Your task to perform on an android device: check google app version Image 0: 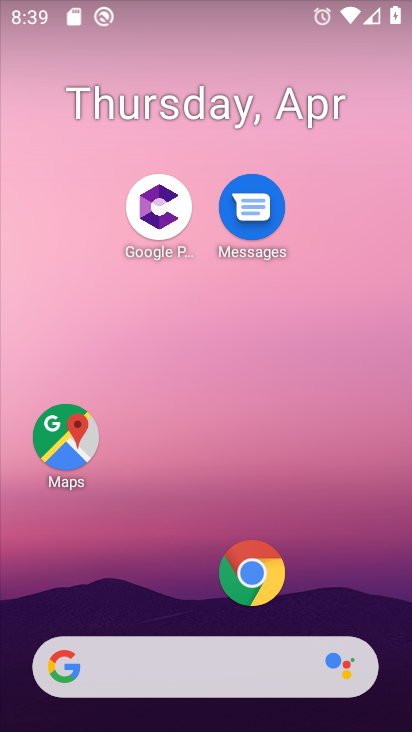
Step 0: drag from (193, 594) to (248, 140)
Your task to perform on an android device: check google app version Image 1: 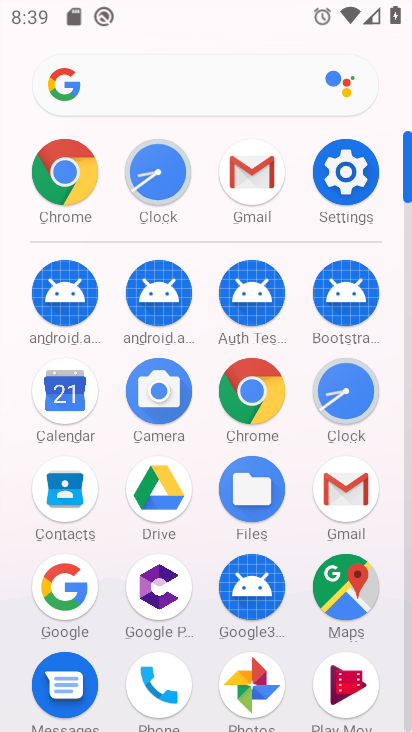
Step 1: click (59, 579)
Your task to perform on an android device: check google app version Image 2: 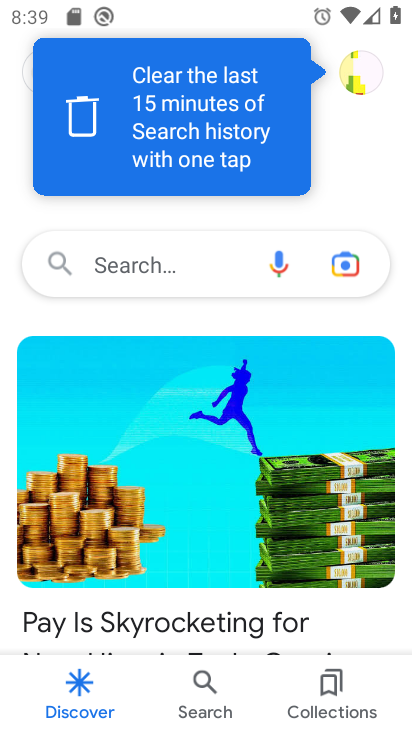
Step 2: drag from (360, 684) to (126, 681)
Your task to perform on an android device: check google app version Image 3: 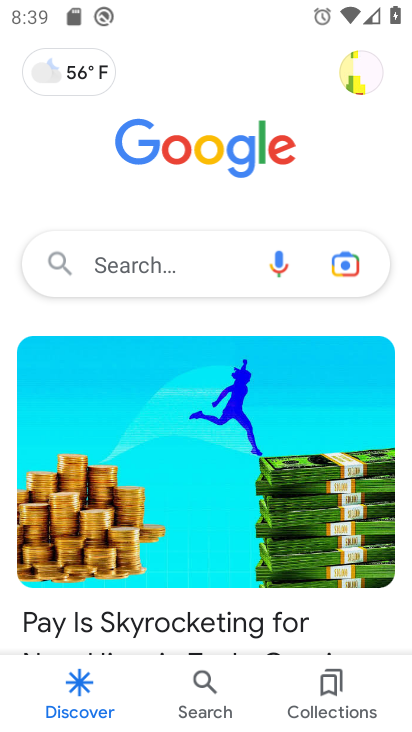
Step 3: drag from (368, 695) to (111, 684)
Your task to perform on an android device: check google app version Image 4: 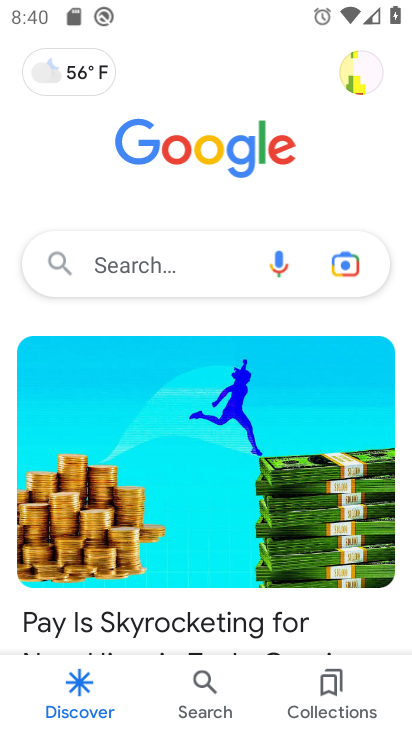
Step 4: click (351, 63)
Your task to perform on an android device: check google app version Image 5: 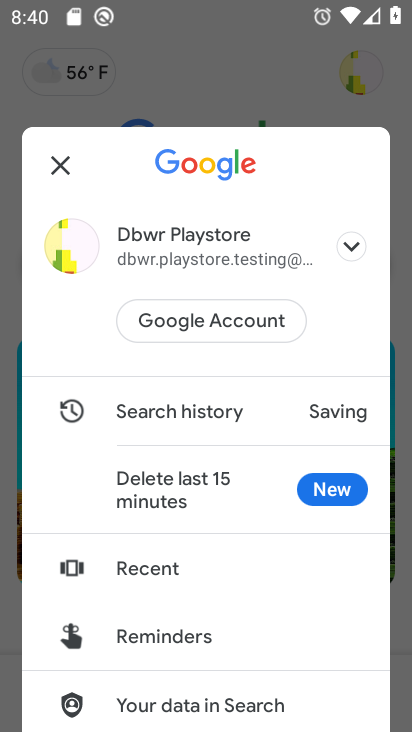
Step 5: drag from (206, 670) to (247, 294)
Your task to perform on an android device: check google app version Image 6: 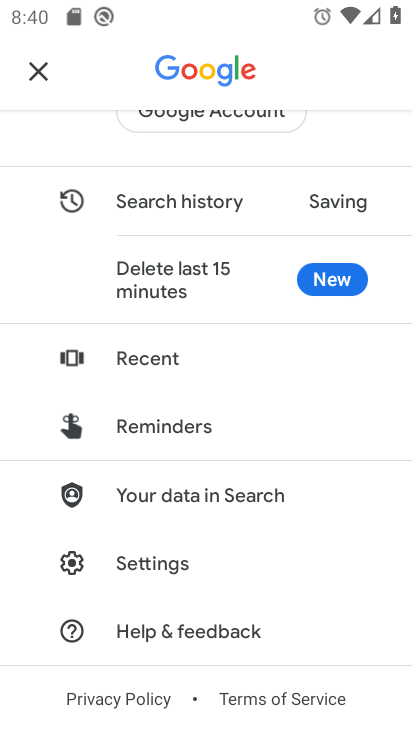
Step 6: click (195, 561)
Your task to perform on an android device: check google app version Image 7: 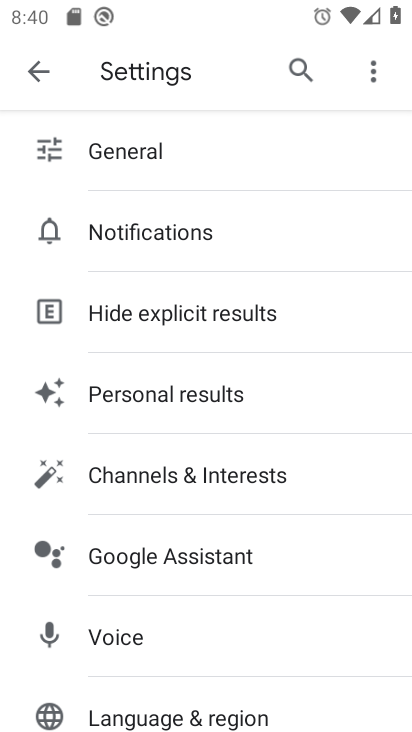
Step 7: drag from (198, 657) to (252, 209)
Your task to perform on an android device: check google app version Image 8: 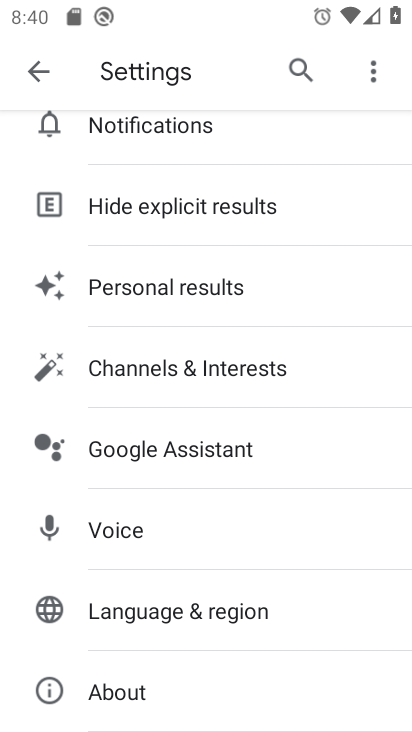
Step 8: click (154, 691)
Your task to perform on an android device: check google app version Image 9: 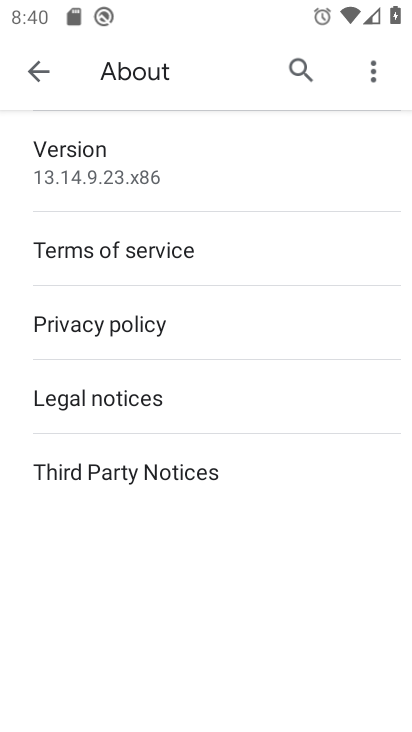
Step 9: task complete